Your task to perform on an android device: clear all cookies in the chrome app Image 0: 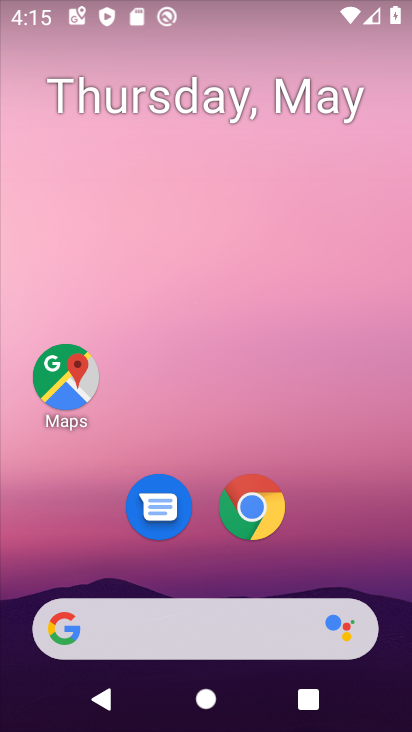
Step 0: click (245, 513)
Your task to perform on an android device: clear all cookies in the chrome app Image 1: 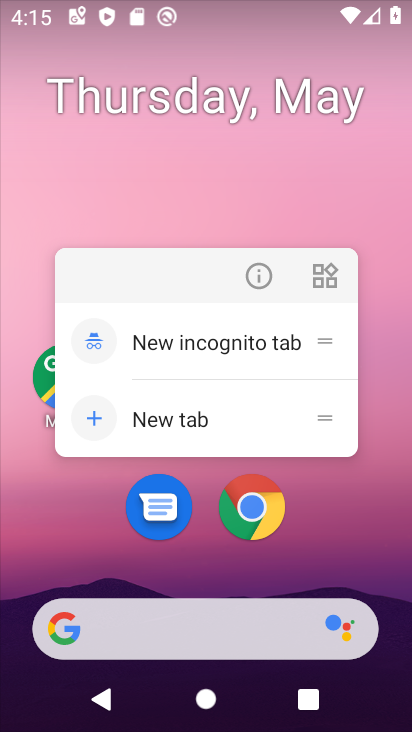
Step 1: click (245, 512)
Your task to perform on an android device: clear all cookies in the chrome app Image 2: 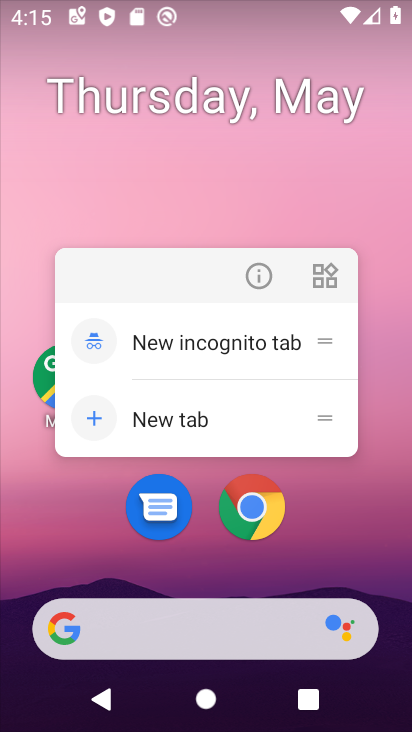
Step 2: click (245, 512)
Your task to perform on an android device: clear all cookies in the chrome app Image 3: 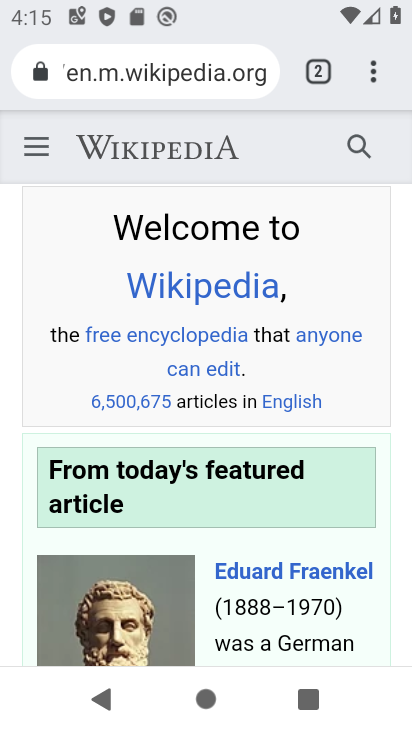
Step 3: click (373, 82)
Your task to perform on an android device: clear all cookies in the chrome app Image 4: 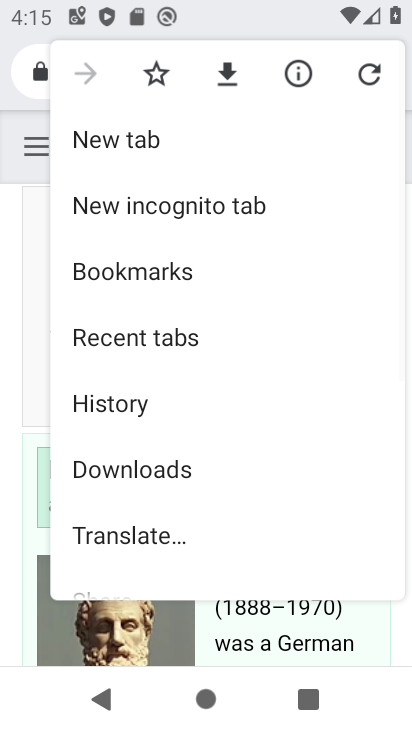
Step 4: click (172, 406)
Your task to perform on an android device: clear all cookies in the chrome app Image 5: 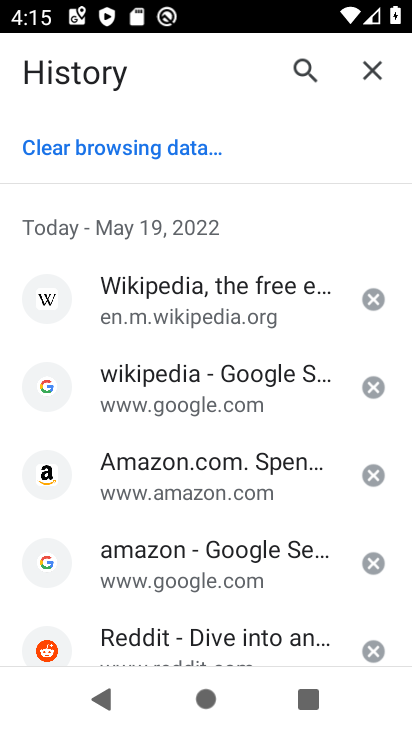
Step 5: click (87, 148)
Your task to perform on an android device: clear all cookies in the chrome app Image 6: 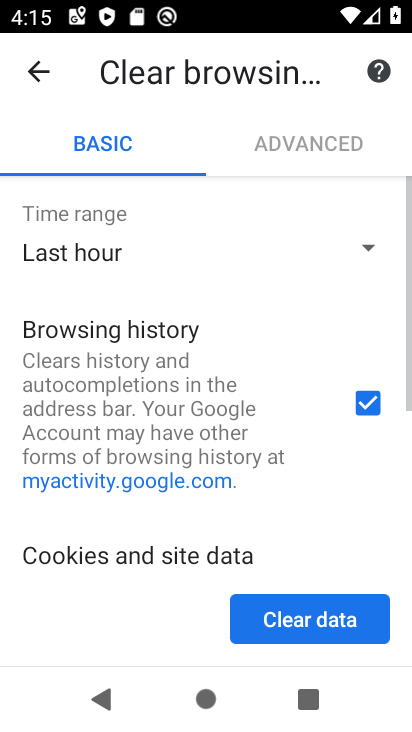
Step 6: drag from (264, 482) to (324, 194)
Your task to perform on an android device: clear all cookies in the chrome app Image 7: 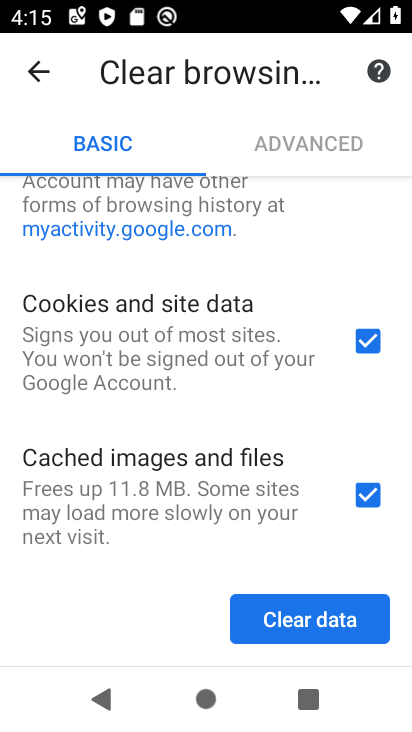
Step 7: click (313, 192)
Your task to perform on an android device: clear all cookies in the chrome app Image 8: 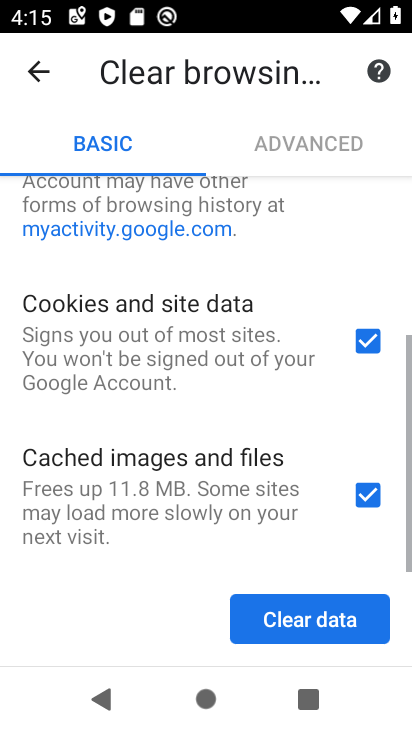
Step 8: click (325, 493)
Your task to perform on an android device: clear all cookies in the chrome app Image 9: 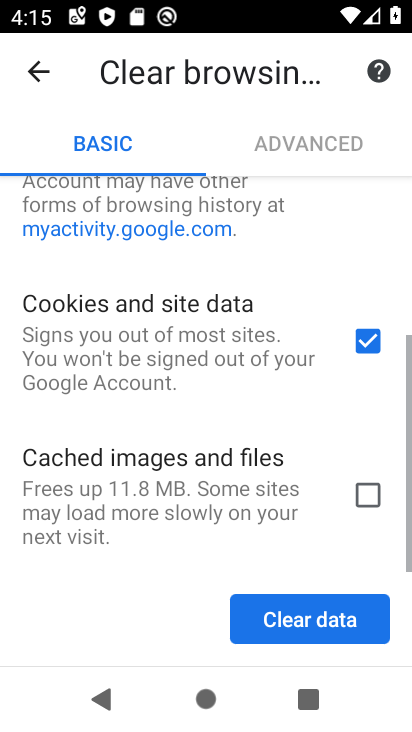
Step 9: click (319, 613)
Your task to perform on an android device: clear all cookies in the chrome app Image 10: 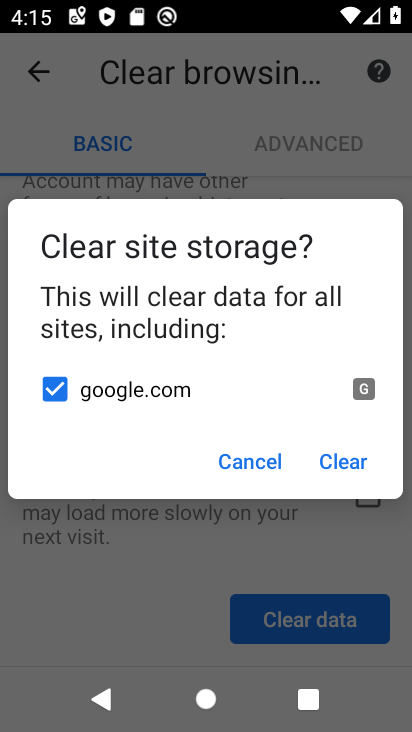
Step 10: click (340, 472)
Your task to perform on an android device: clear all cookies in the chrome app Image 11: 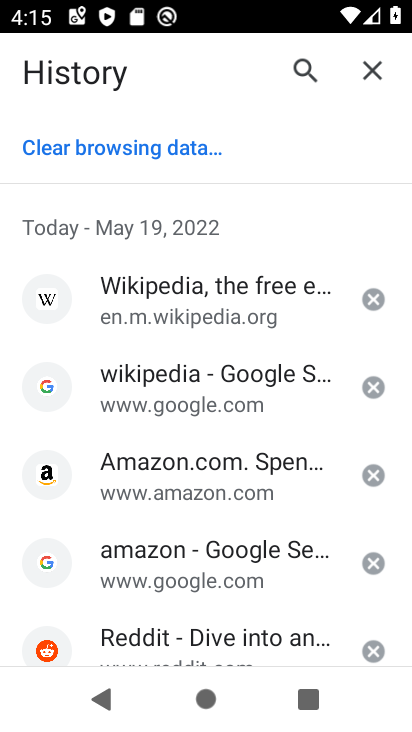
Step 11: task complete